Your task to perform on an android device: Open privacy settings Image 0: 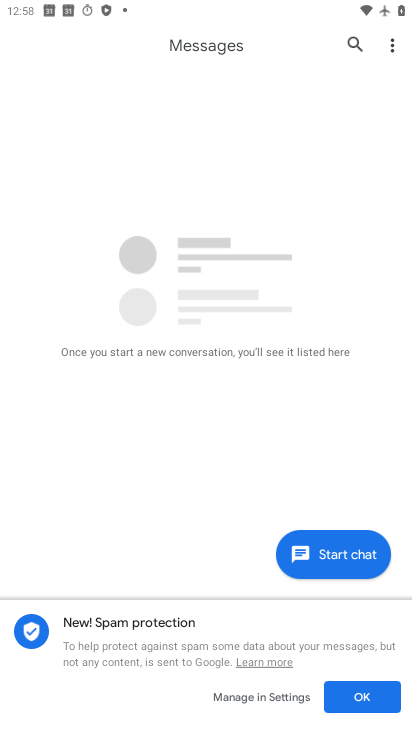
Step 0: drag from (345, 612) to (340, 202)
Your task to perform on an android device: Open privacy settings Image 1: 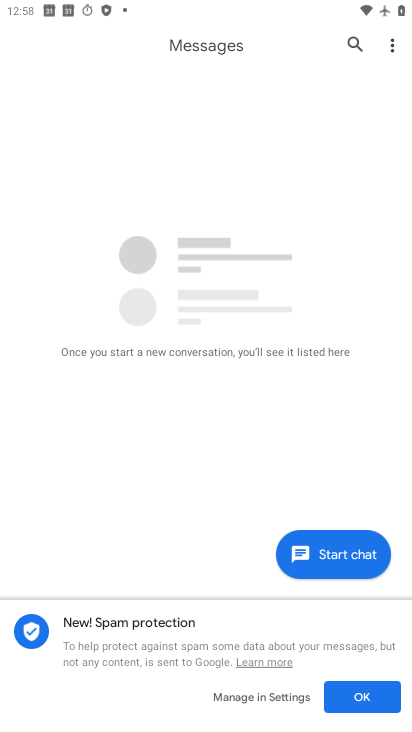
Step 1: press home button
Your task to perform on an android device: Open privacy settings Image 2: 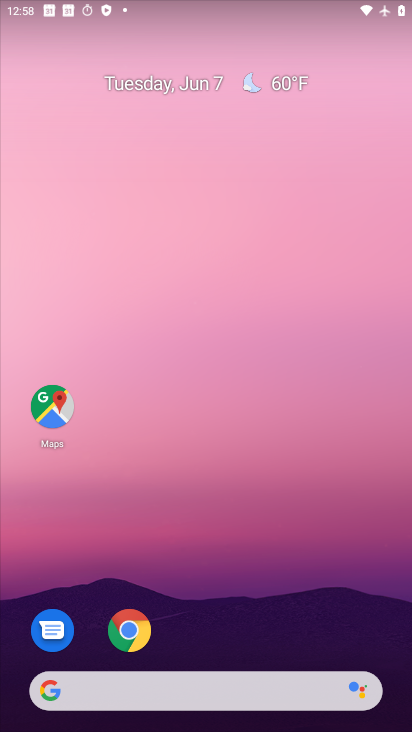
Step 2: drag from (326, 622) to (294, 15)
Your task to perform on an android device: Open privacy settings Image 3: 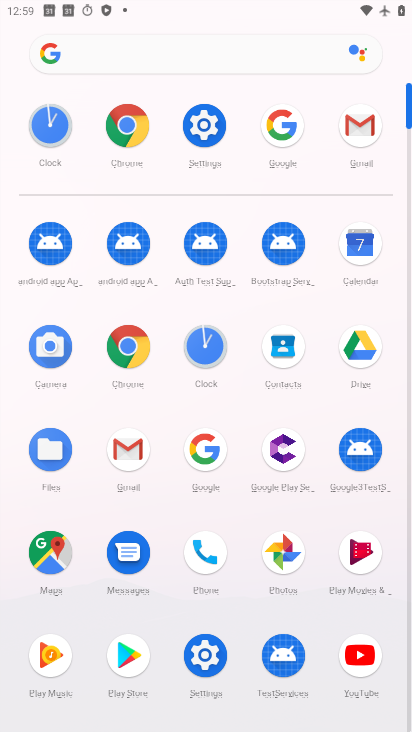
Step 3: click (205, 672)
Your task to perform on an android device: Open privacy settings Image 4: 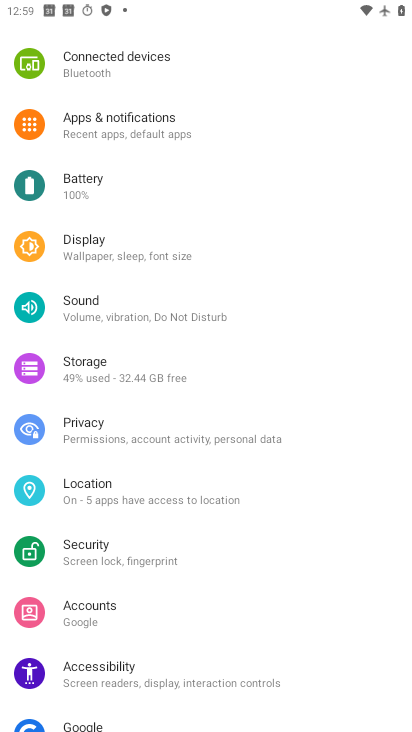
Step 4: click (121, 429)
Your task to perform on an android device: Open privacy settings Image 5: 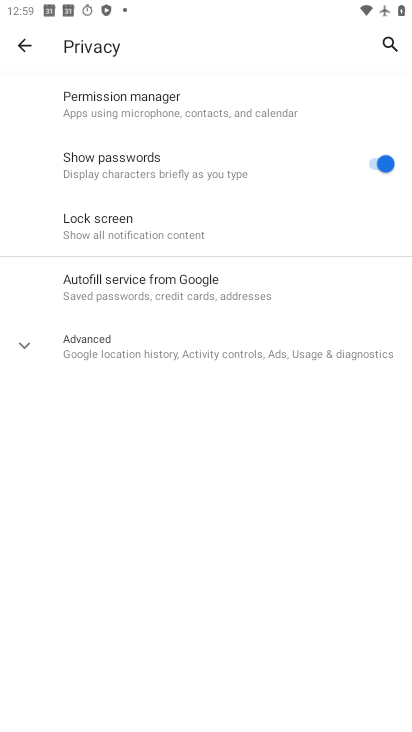
Step 5: task complete